Your task to perform on an android device: turn off sleep mode Image 0: 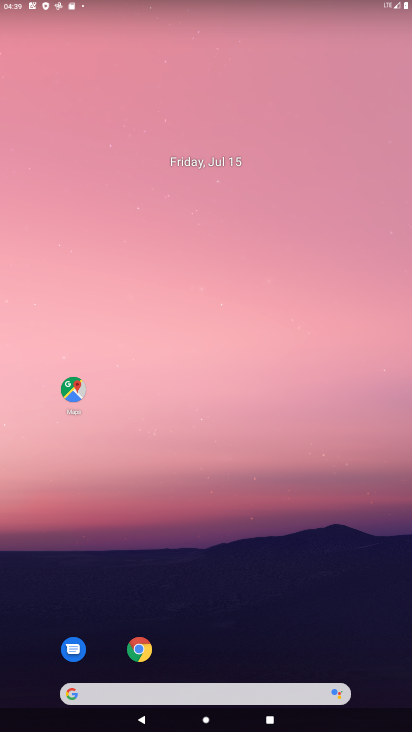
Step 0: drag from (289, 440) to (250, 23)
Your task to perform on an android device: turn off sleep mode Image 1: 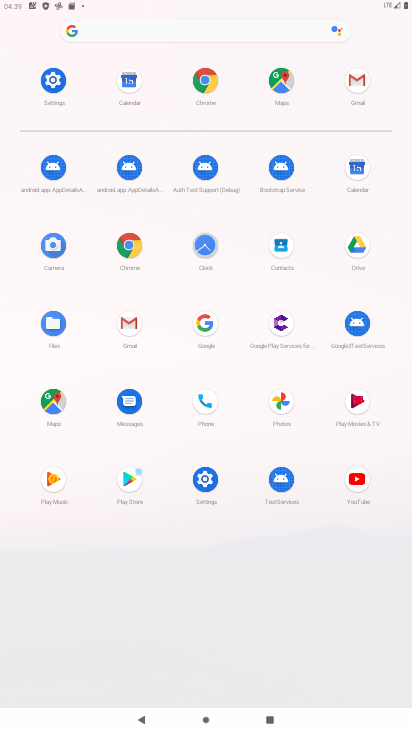
Step 1: click (60, 85)
Your task to perform on an android device: turn off sleep mode Image 2: 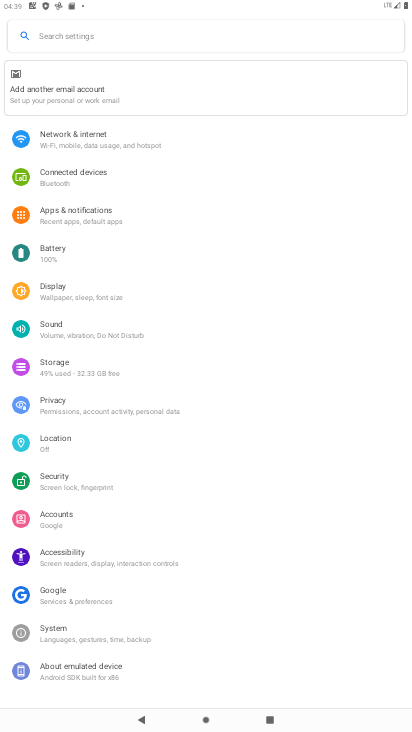
Step 2: click (71, 302)
Your task to perform on an android device: turn off sleep mode Image 3: 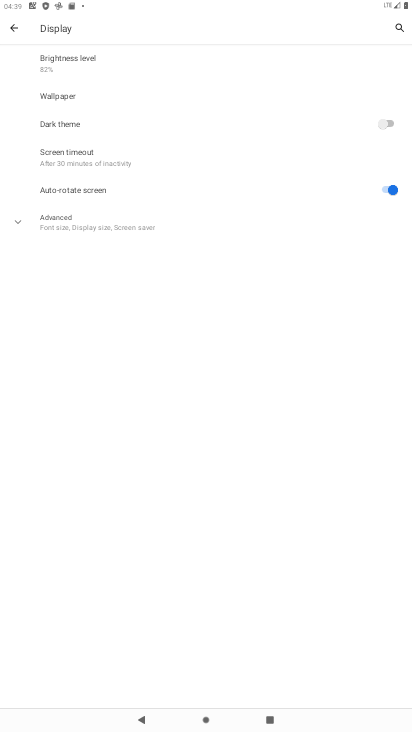
Step 3: click (94, 162)
Your task to perform on an android device: turn off sleep mode Image 4: 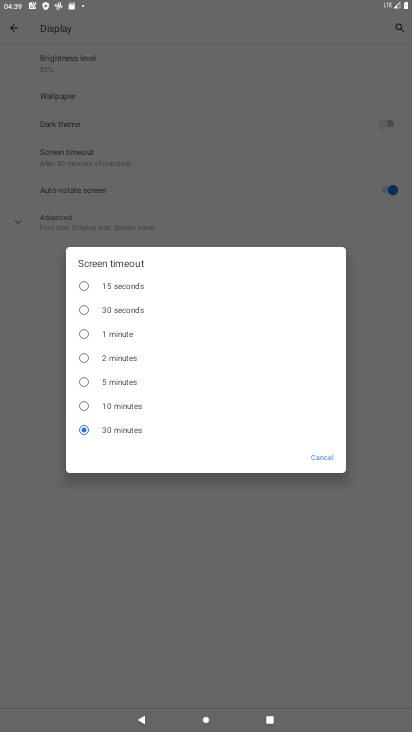
Step 4: task complete